Your task to perform on an android device: turn smart compose on in the gmail app Image 0: 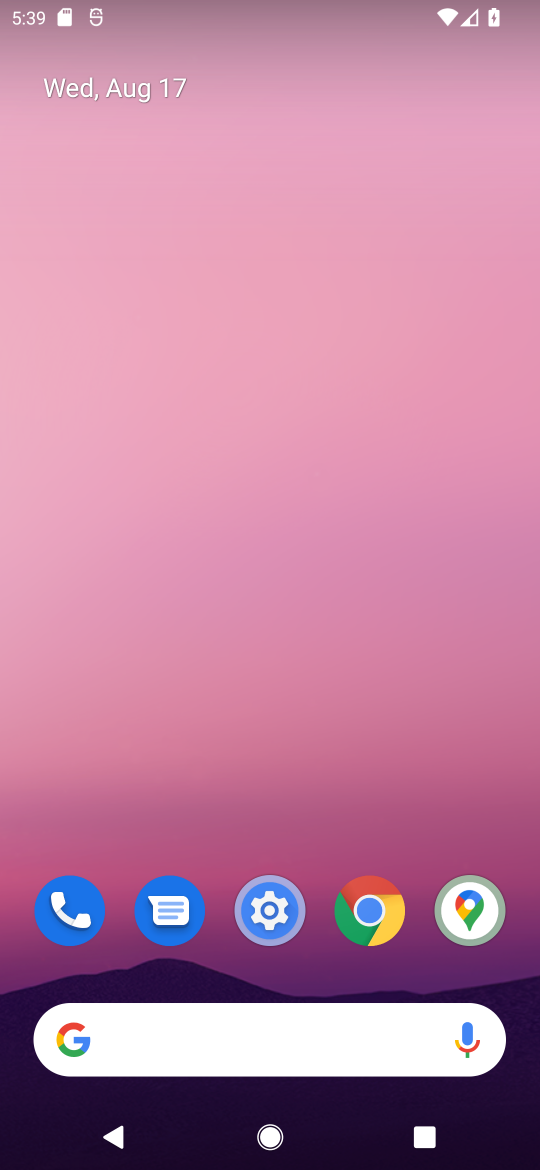
Step 0: drag from (421, 825) to (384, 89)
Your task to perform on an android device: turn smart compose on in the gmail app Image 1: 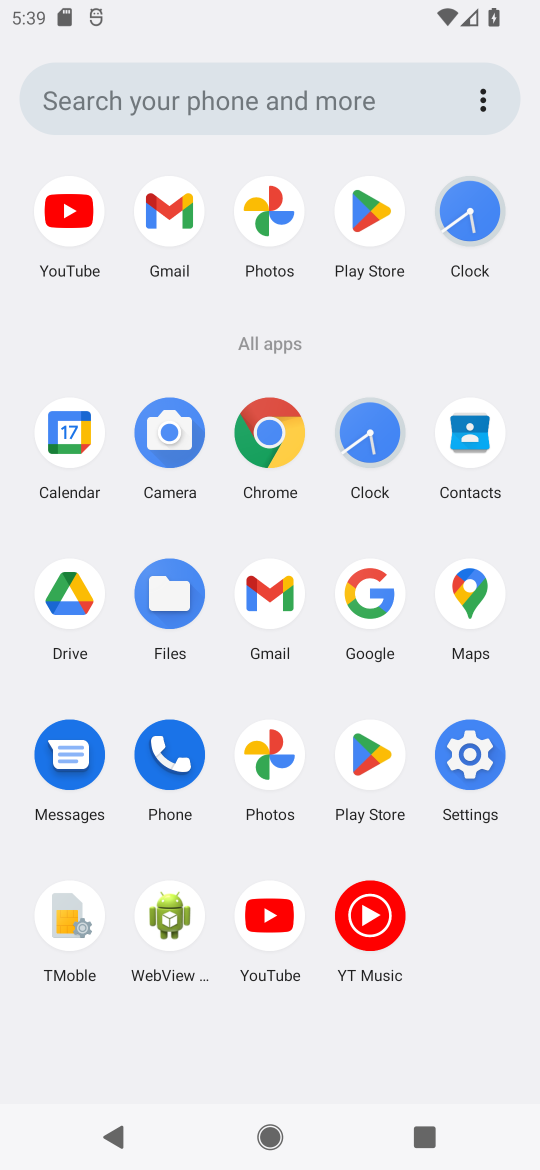
Step 1: task complete